Your task to perform on an android device: Search for Mexican restaurants on Maps Image 0: 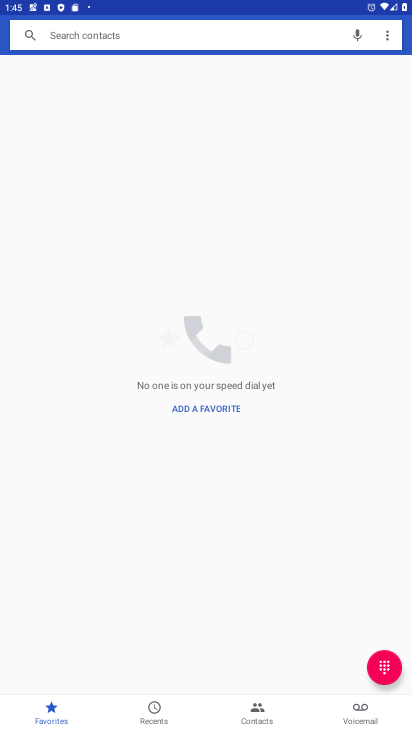
Step 0: press home button
Your task to perform on an android device: Search for Mexican restaurants on Maps Image 1: 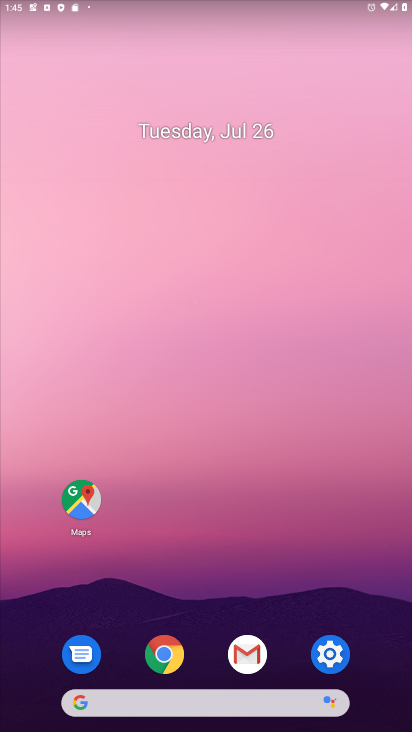
Step 1: drag from (243, 722) to (228, 181)
Your task to perform on an android device: Search for Mexican restaurants on Maps Image 2: 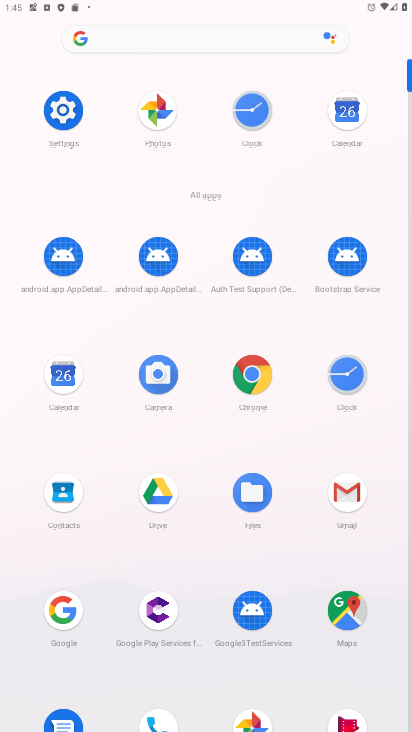
Step 2: click (346, 598)
Your task to perform on an android device: Search for Mexican restaurants on Maps Image 3: 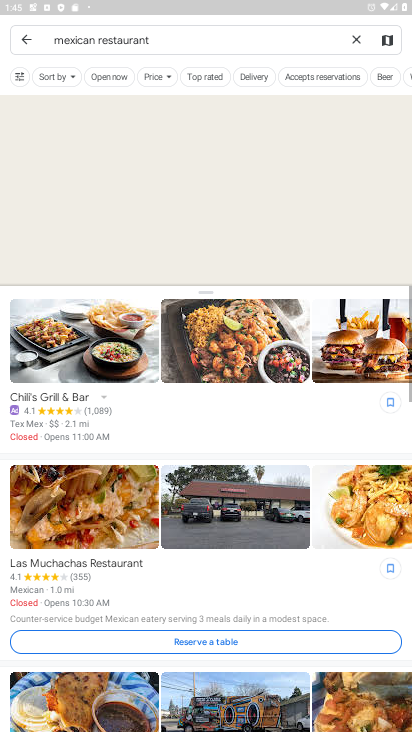
Step 3: click (184, 262)
Your task to perform on an android device: Search for Mexican restaurants on Maps Image 4: 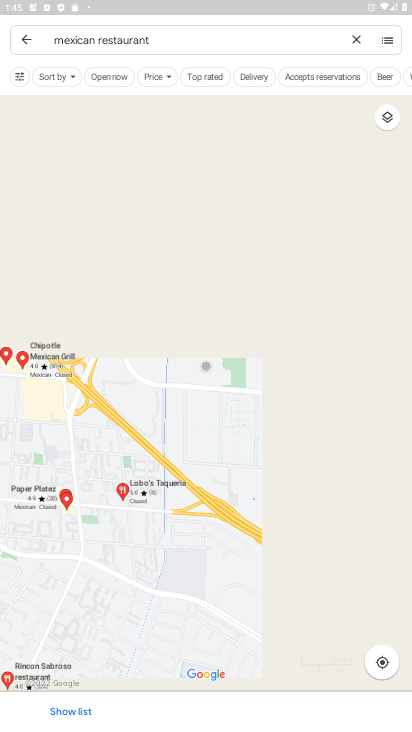
Step 4: click (387, 658)
Your task to perform on an android device: Search for Mexican restaurants on Maps Image 5: 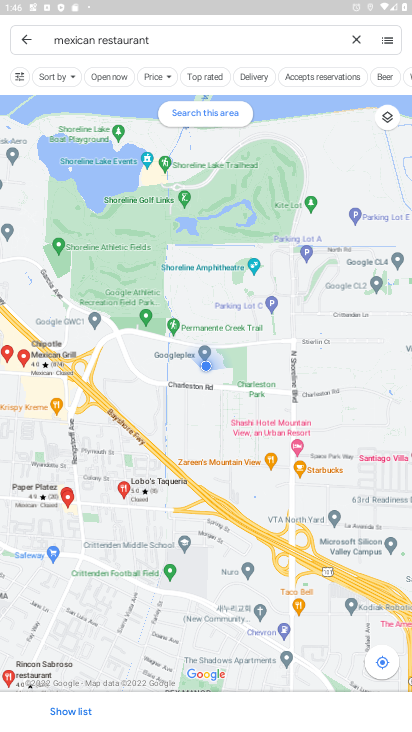
Step 5: task complete